Your task to perform on an android device: turn on the 24-hour format for clock Image 0: 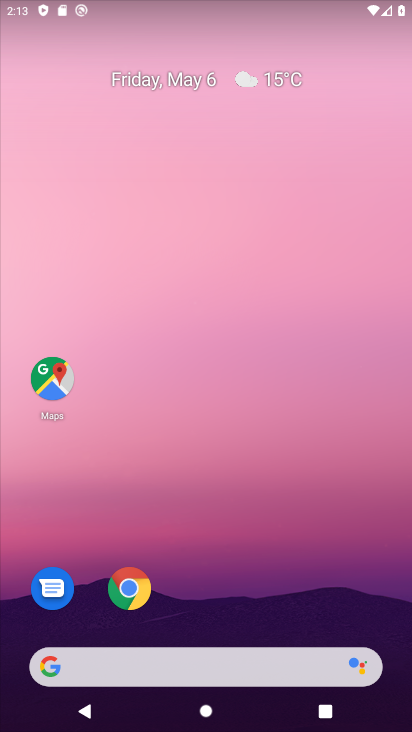
Step 0: drag from (211, 615) to (231, 64)
Your task to perform on an android device: turn on the 24-hour format for clock Image 1: 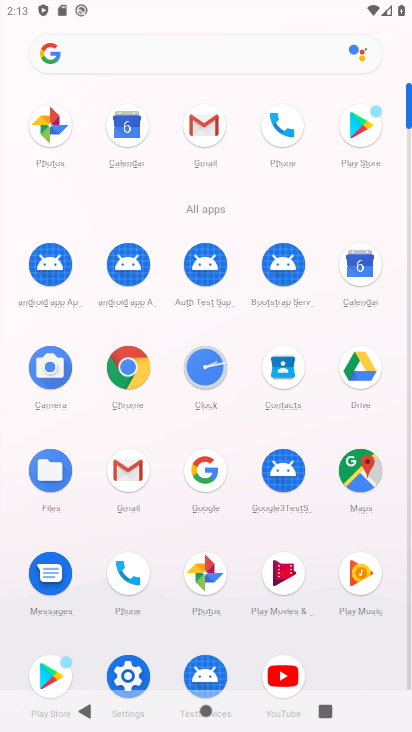
Step 1: click (210, 368)
Your task to perform on an android device: turn on the 24-hour format for clock Image 2: 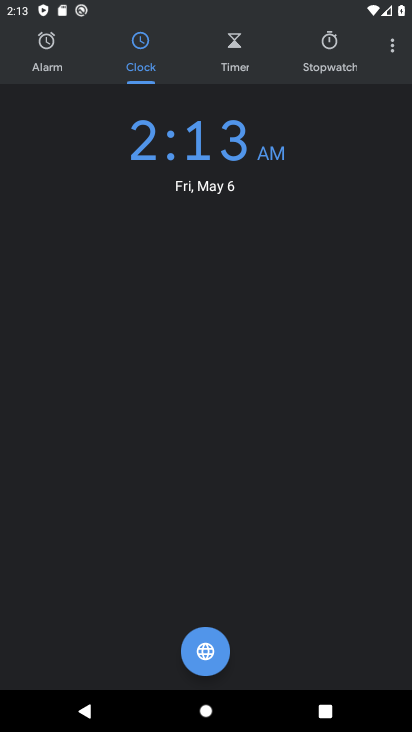
Step 2: click (393, 49)
Your task to perform on an android device: turn on the 24-hour format for clock Image 3: 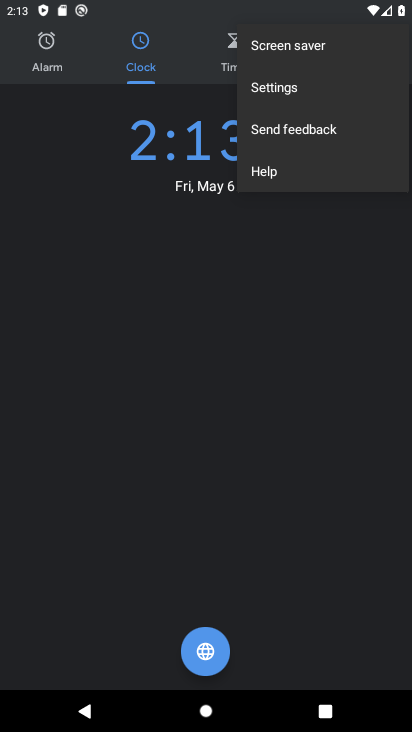
Step 3: click (289, 80)
Your task to perform on an android device: turn on the 24-hour format for clock Image 4: 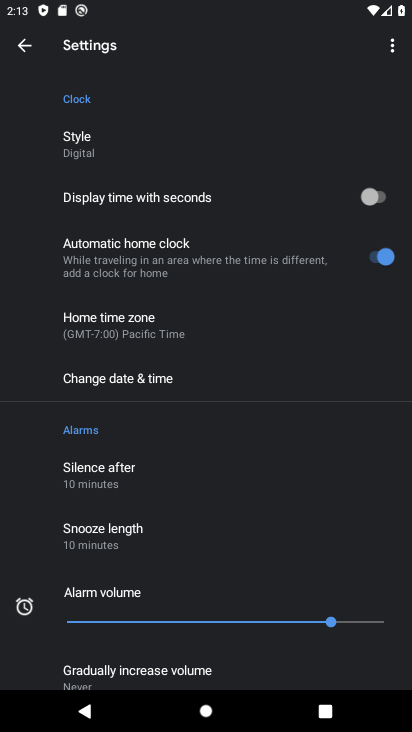
Step 4: click (116, 375)
Your task to perform on an android device: turn on the 24-hour format for clock Image 5: 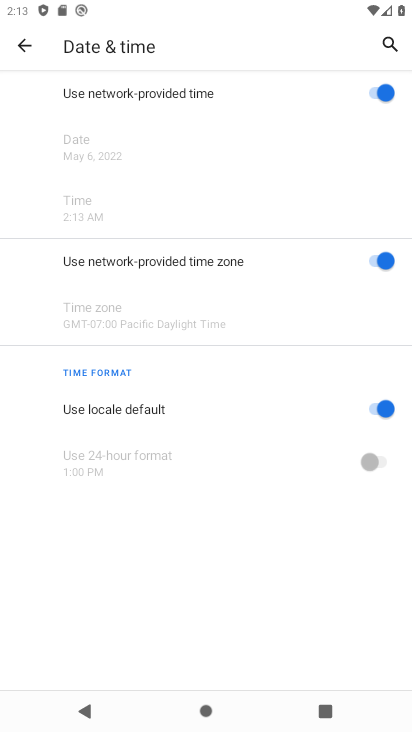
Step 5: click (379, 402)
Your task to perform on an android device: turn on the 24-hour format for clock Image 6: 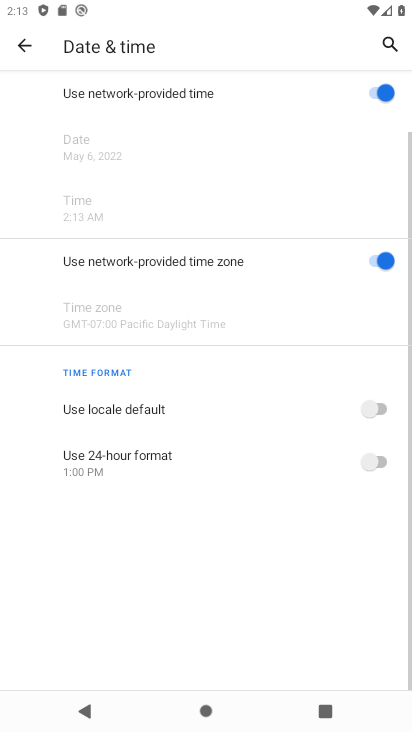
Step 6: click (370, 456)
Your task to perform on an android device: turn on the 24-hour format for clock Image 7: 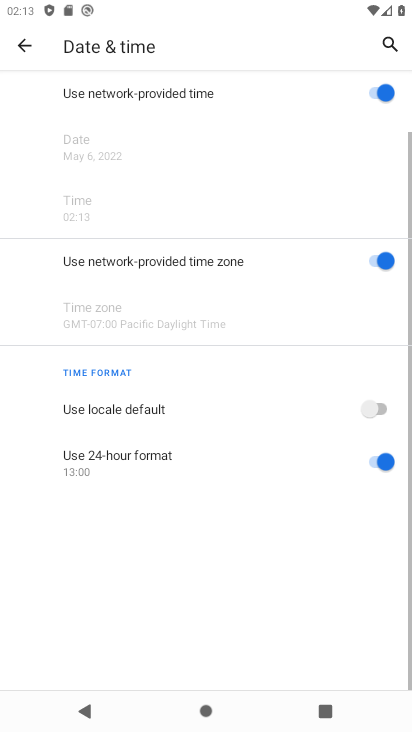
Step 7: task complete